Your task to perform on an android device: snooze an email in the gmail app Image 0: 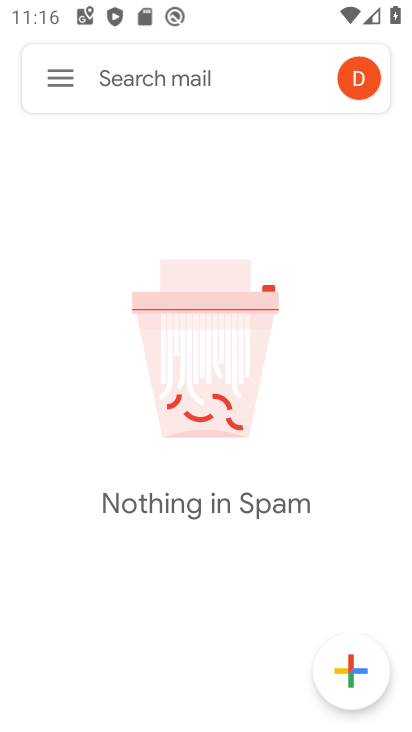
Step 0: click (59, 81)
Your task to perform on an android device: snooze an email in the gmail app Image 1: 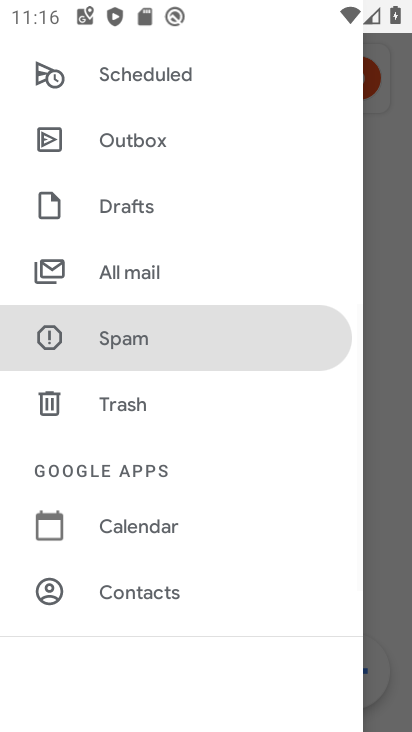
Step 1: drag from (221, 541) to (266, 254)
Your task to perform on an android device: snooze an email in the gmail app Image 2: 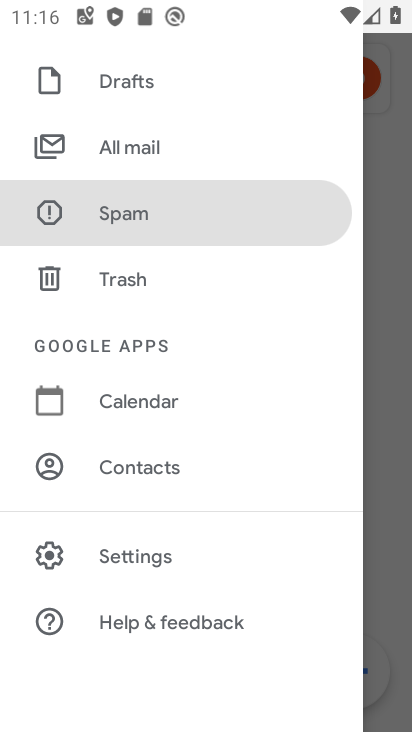
Step 2: drag from (282, 277) to (288, 396)
Your task to perform on an android device: snooze an email in the gmail app Image 3: 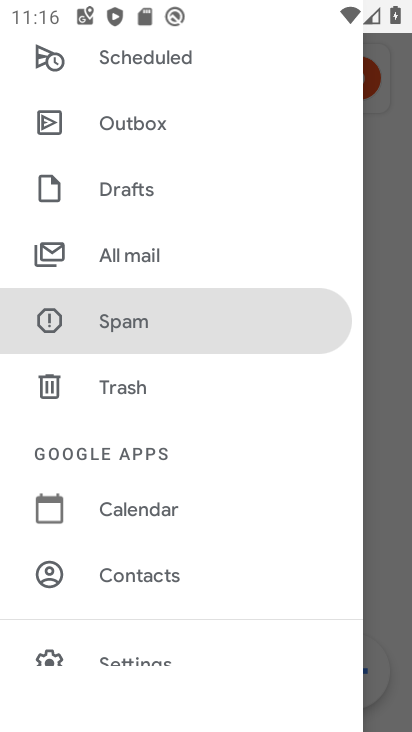
Step 3: drag from (289, 218) to (281, 359)
Your task to perform on an android device: snooze an email in the gmail app Image 4: 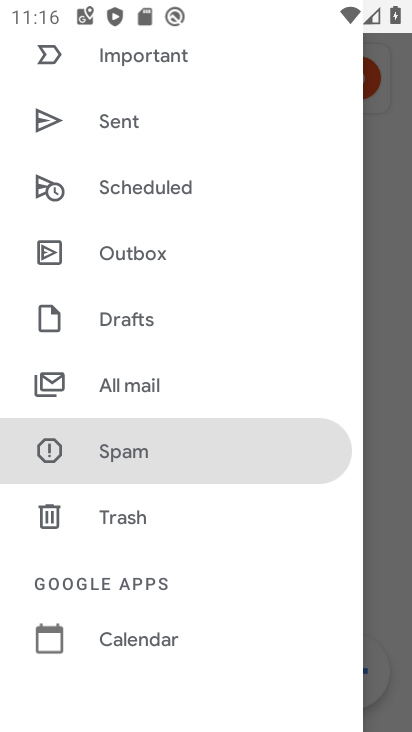
Step 4: drag from (263, 189) to (274, 301)
Your task to perform on an android device: snooze an email in the gmail app Image 5: 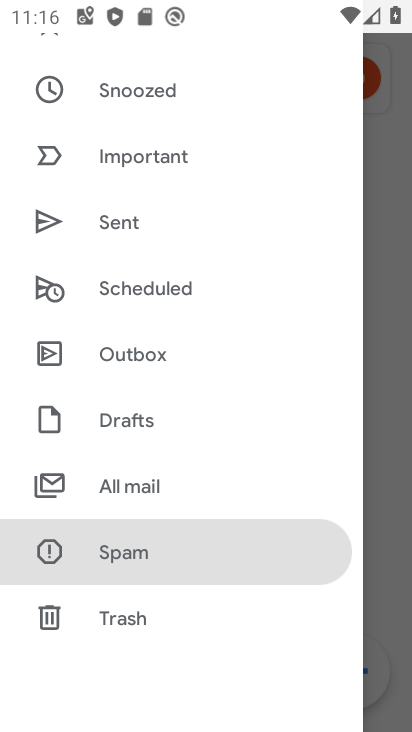
Step 5: drag from (291, 155) to (285, 285)
Your task to perform on an android device: snooze an email in the gmail app Image 6: 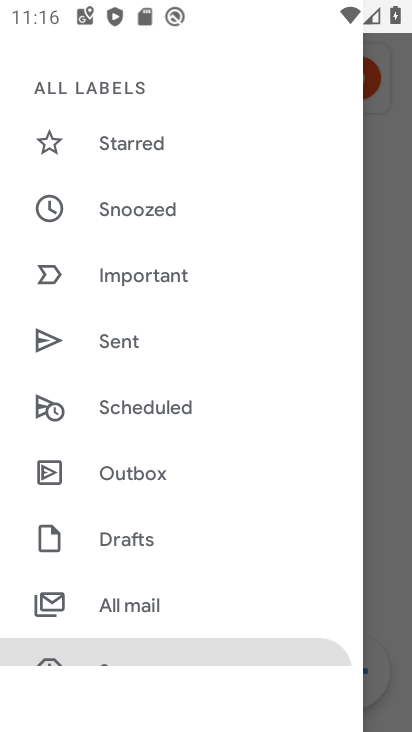
Step 6: drag from (274, 149) to (282, 318)
Your task to perform on an android device: snooze an email in the gmail app Image 7: 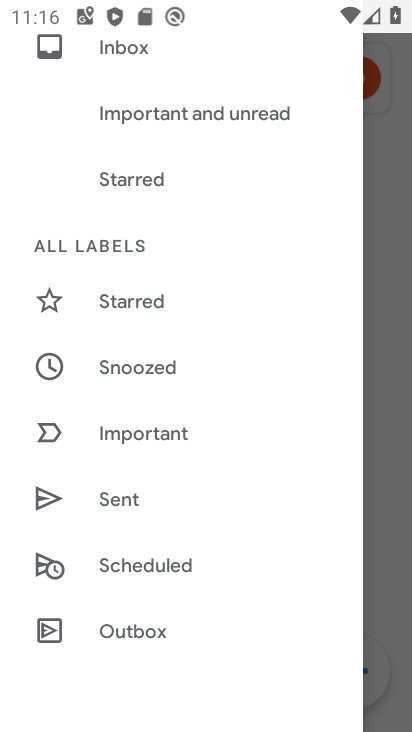
Step 7: click (148, 375)
Your task to perform on an android device: snooze an email in the gmail app Image 8: 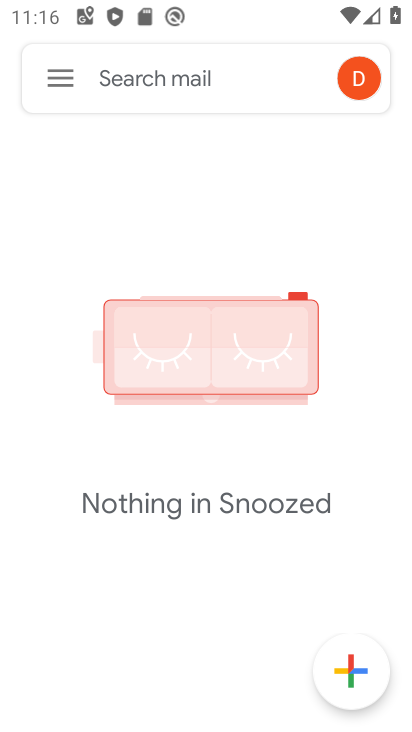
Step 8: task complete